Your task to perform on an android device: Find coffee shops on Maps Image 0: 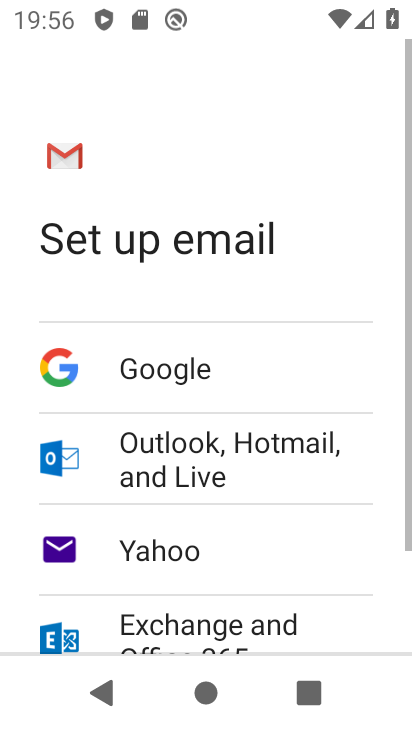
Step 0: drag from (194, 582) to (309, 118)
Your task to perform on an android device: Find coffee shops on Maps Image 1: 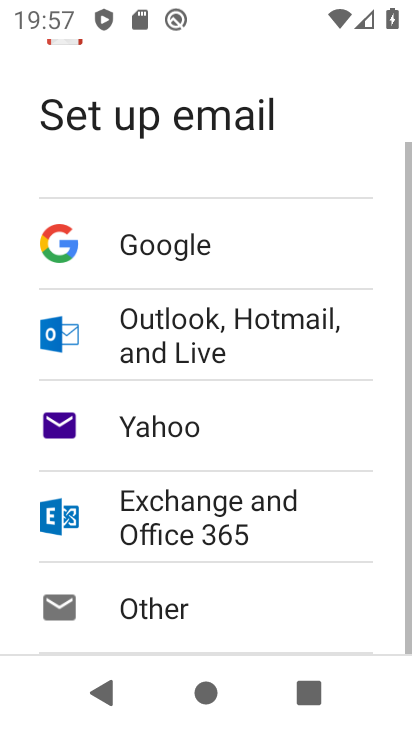
Step 1: press home button
Your task to perform on an android device: Find coffee shops on Maps Image 2: 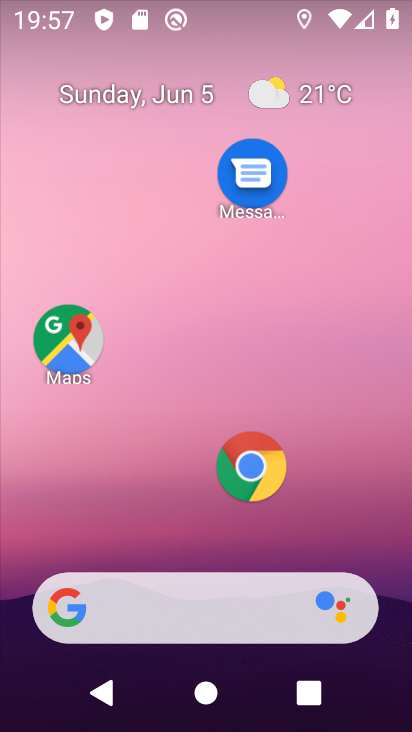
Step 2: drag from (179, 520) to (179, 153)
Your task to perform on an android device: Find coffee shops on Maps Image 3: 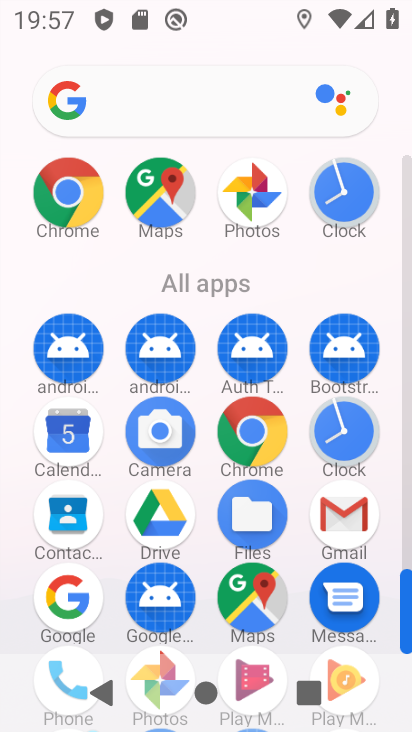
Step 3: click (256, 620)
Your task to perform on an android device: Find coffee shops on Maps Image 4: 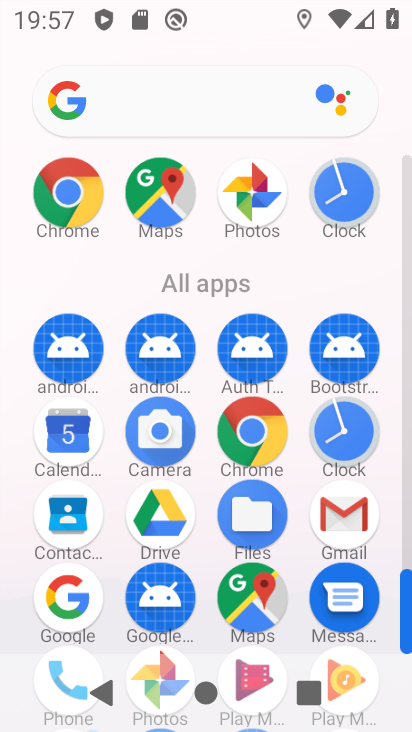
Step 4: click (256, 615)
Your task to perform on an android device: Find coffee shops on Maps Image 5: 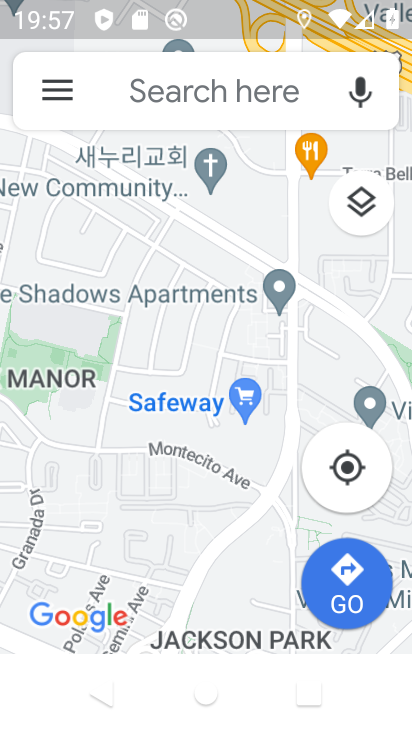
Step 5: drag from (184, 576) to (237, 235)
Your task to perform on an android device: Find coffee shops on Maps Image 6: 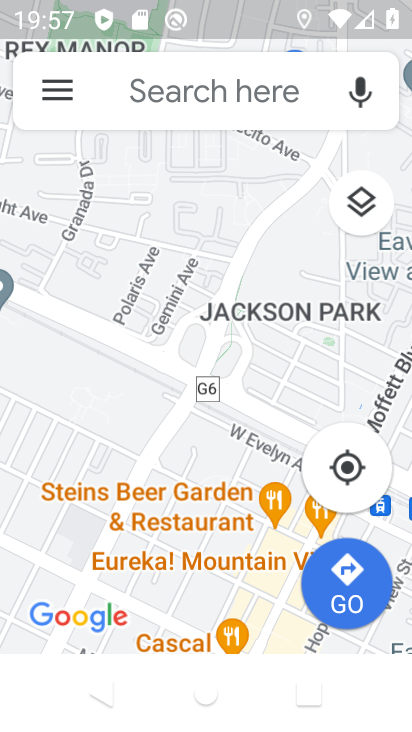
Step 6: drag from (197, 530) to (202, 86)
Your task to perform on an android device: Find coffee shops on Maps Image 7: 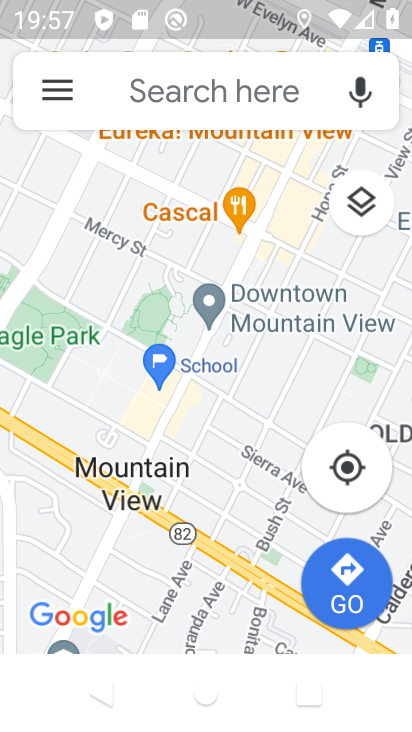
Step 7: click (173, 76)
Your task to perform on an android device: Find coffee shops on Maps Image 8: 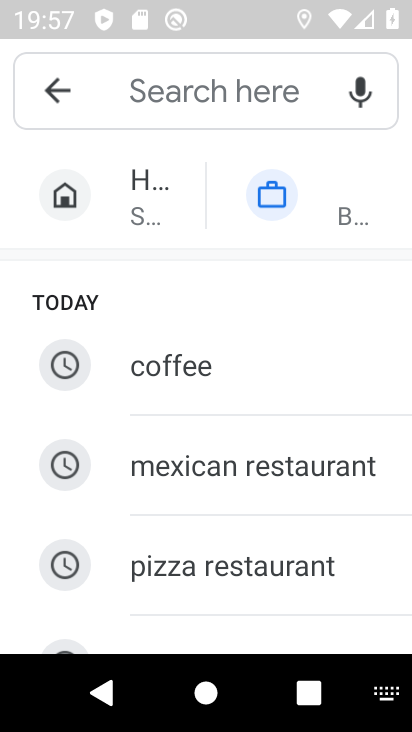
Step 8: click (211, 380)
Your task to perform on an android device: Find coffee shops on Maps Image 9: 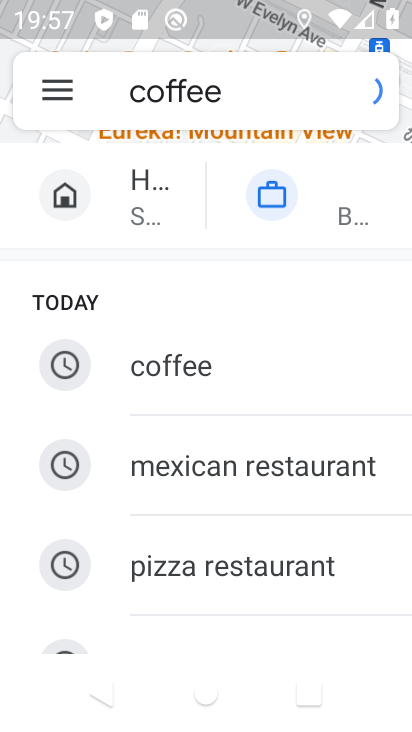
Step 9: task complete